Your task to perform on an android device: change notification settings in the gmail app Image 0: 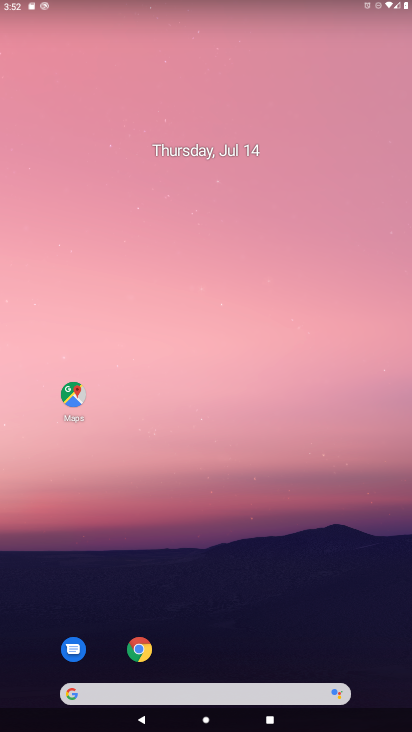
Step 0: drag from (200, 658) to (170, 49)
Your task to perform on an android device: change notification settings in the gmail app Image 1: 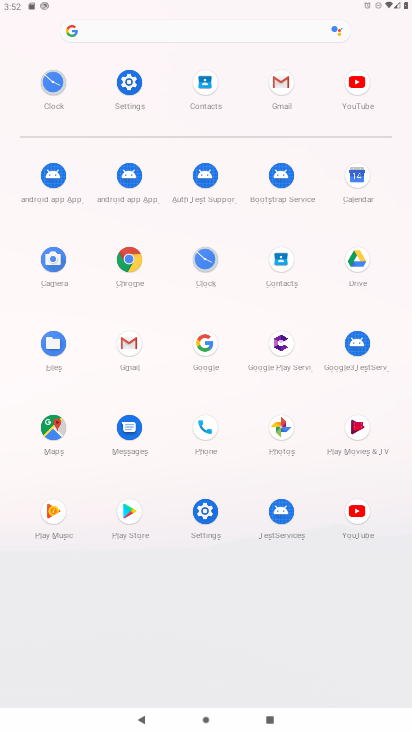
Step 1: click (130, 341)
Your task to perform on an android device: change notification settings in the gmail app Image 2: 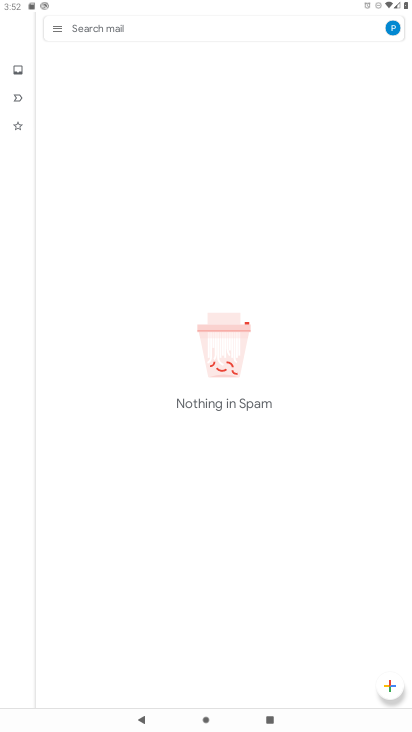
Step 2: click (60, 31)
Your task to perform on an android device: change notification settings in the gmail app Image 3: 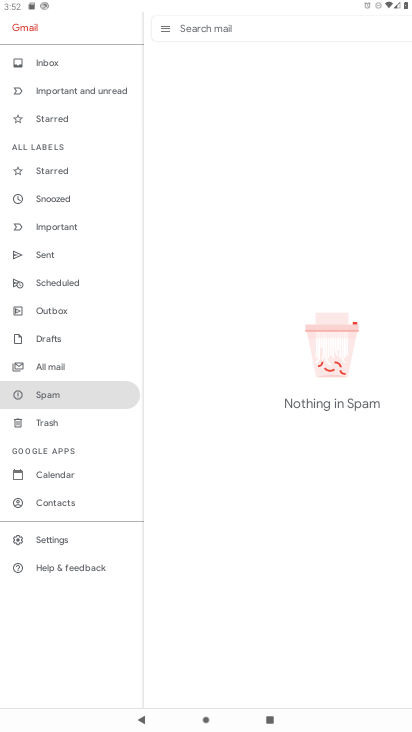
Step 3: click (67, 538)
Your task to perform on an android device: change notification settings in the gmail app Image 4: 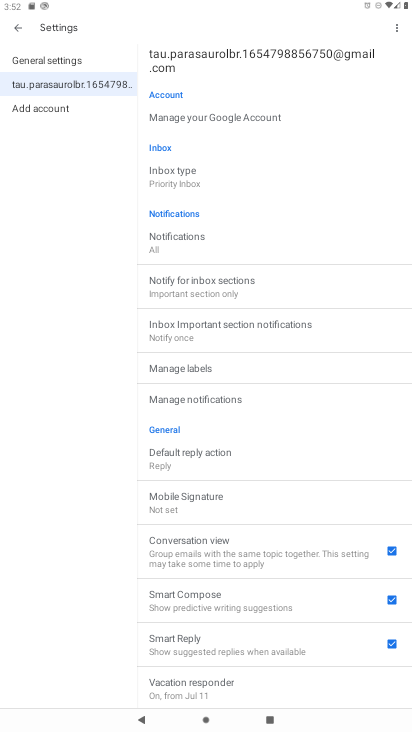
Step 4: click (95, 60)
Your task to perform on an android device: change notification settings in the gmail app Image 5: 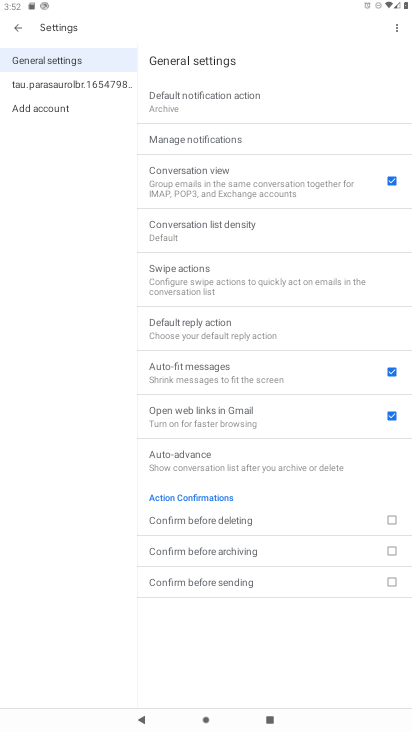
Step 5: click (258, 136)
Your task to perform on an android device: change notification settings in the gmail app Image 6: 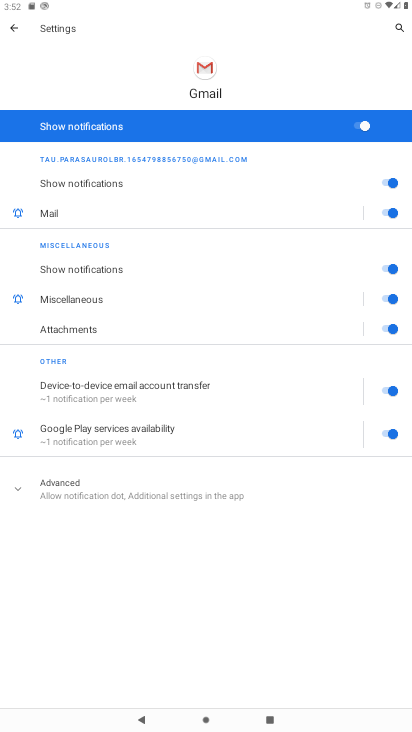
Step 6: click (343, 123)
Your task to perform on an android device: change notification settings in the gmail app Image 7: 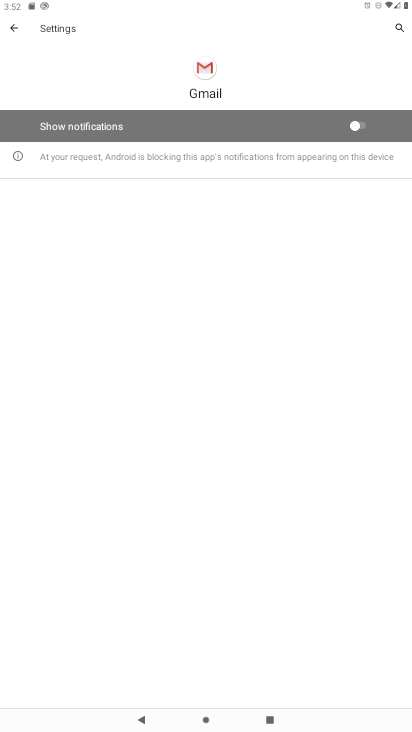
Step 7: task complete